Your task to perform on an android device: Go to Yahoo.com Image 0: 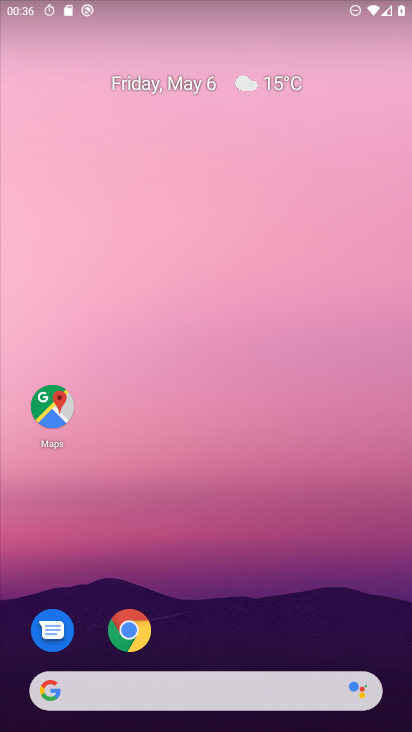
Step 0: drag from (341, 595) to (313, 98)
Your task to perform on an android device: Go to Yahoo.com Image 1: 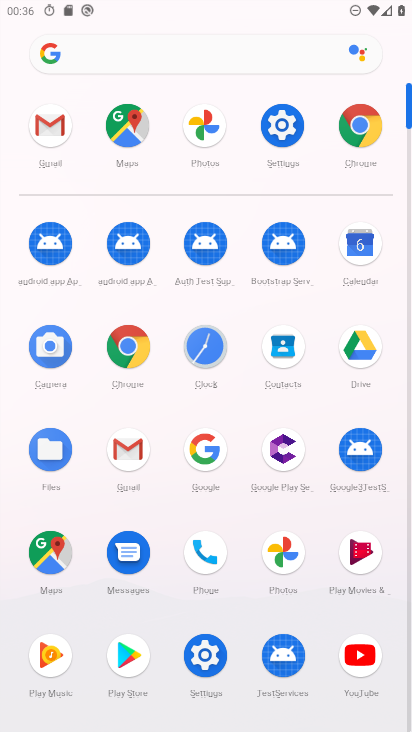
Step 1: click (367, 122)
Your task to perform on an android device: Go to Yahoo.com Image 2: 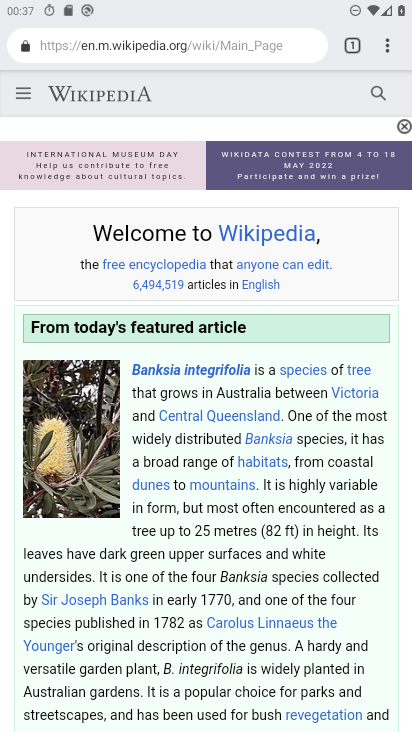
Step 2: click (238, 38)
Your task to perform on an android device: Go to Yahoo.com Image 3: 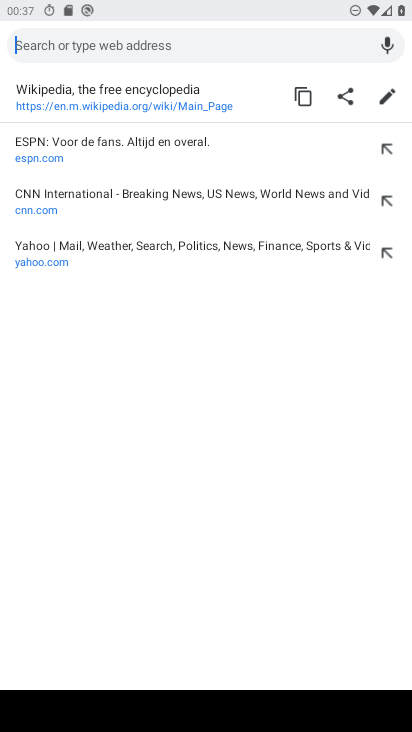
Step 3: type "yahoo.com"
Your task to perform on an android device: Go to Yahoo.com Image 4: 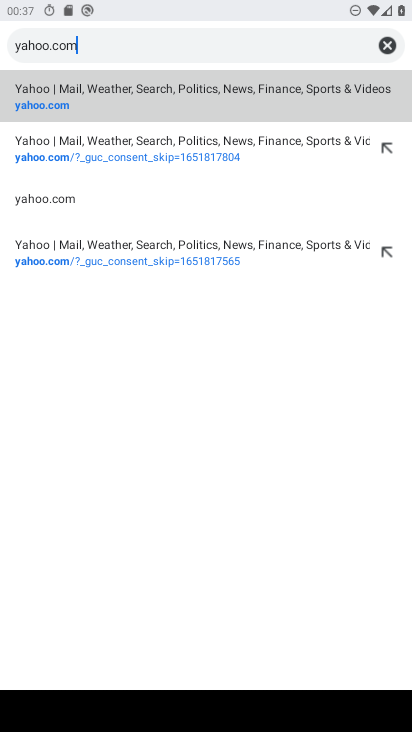
Step 4: click (69, 101)
Your task to perform on an android device: Go to Yahoo.com Image 5: 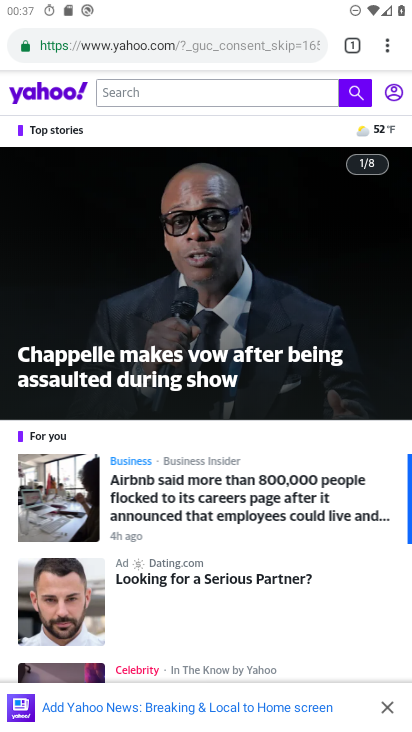
Step 5: task complete